Your task to perform on an android device: Open the web browser Image 0: 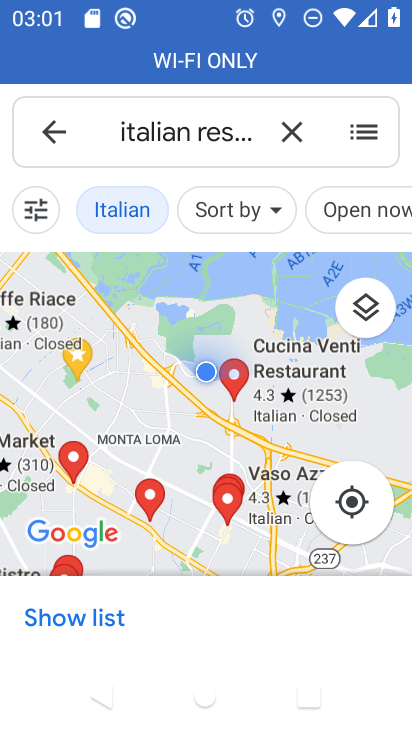
Step 0: press home button
Your task to perform on an android device: Open the web browser Image 1: 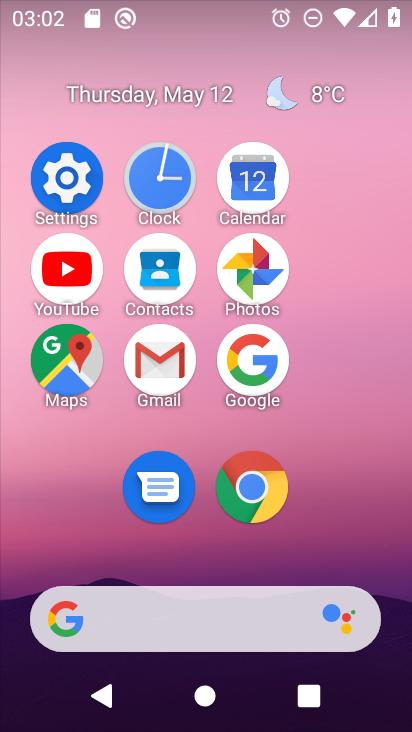
Step 1: click (256, 487)
Your task to perform on an android device: Open the web browser Image 2: 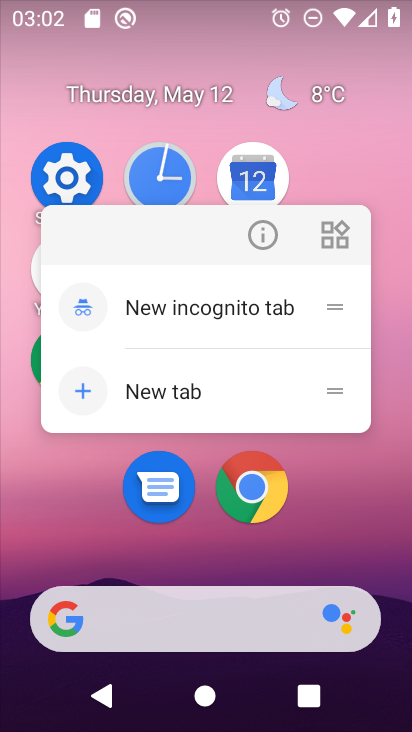
Step 2: click (261, 482)
Your task to perform on an android device: Open the web browser Image 3: 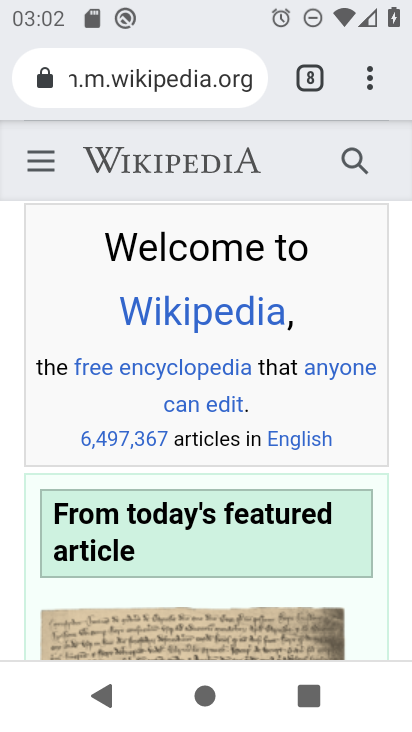
Step 3: task complete